Your task to perform on an android device: turn pop-ups off in chrome Image 0: 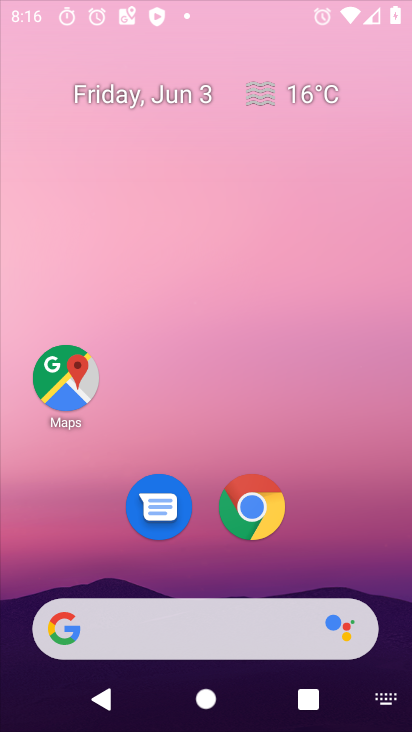
Step 0: press home button
Your task to perform on an android device: turn pop-ups off in chrome Image 1: 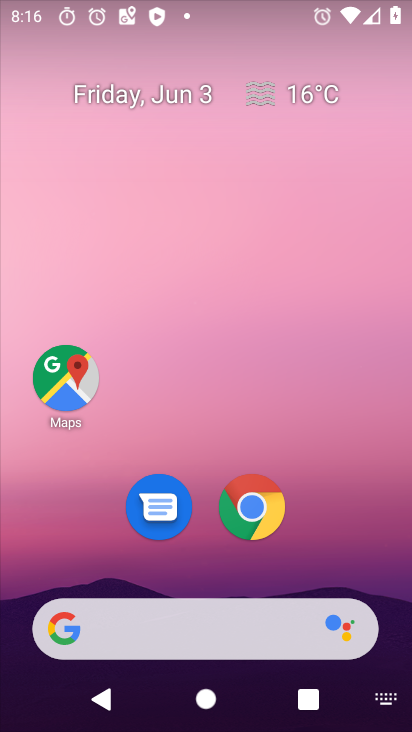
Step 1: click (255, 508)
Your task to perform on an android device: turn pop-ups off in chrome Image 2: 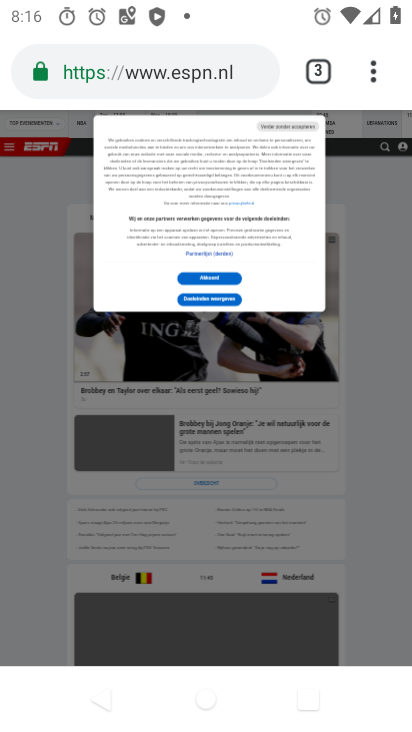
Step 2: click (371, 74)
Your task to perform on an android device: turn pop-ups off in chrome Image 3: 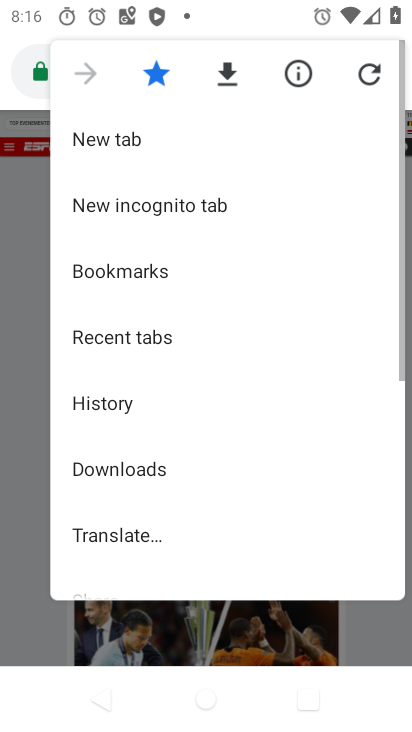
Step 3: drag from (248, 449) to (243, 88)
Your task to perform on an android device: turn pop-ups off in chrome Image 4: 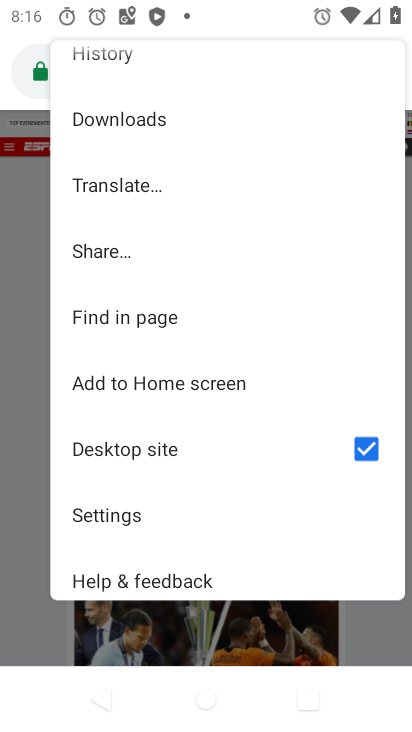
Step 4: click (171, 505)
Your task to perform on an android device: turn pop-ups off in chrome Image 5: 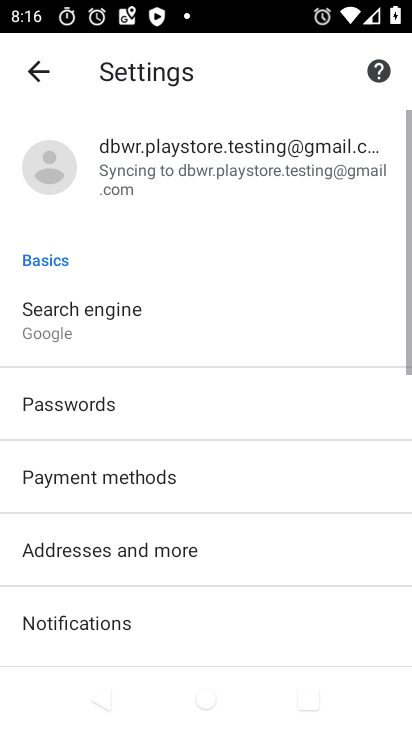
Step 5: drag from (197, 544) to (192, 124)
Your task to perform on an android device: turn pop-ups off in chrome Image 6: 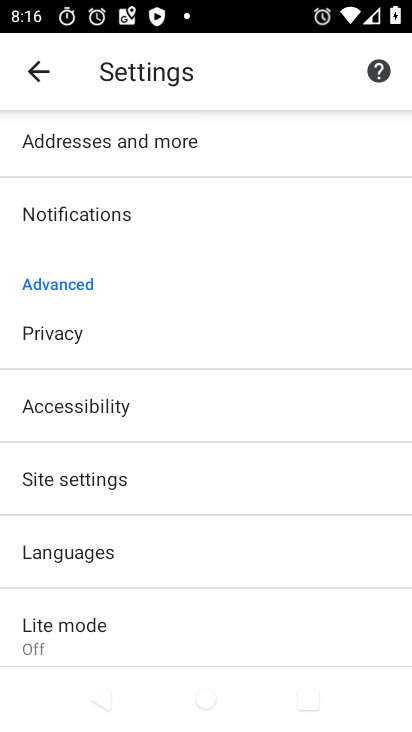
Step 6: click (169, 465)
Your task to perform on an android device: turn pop-ups off in chrome Image 7: 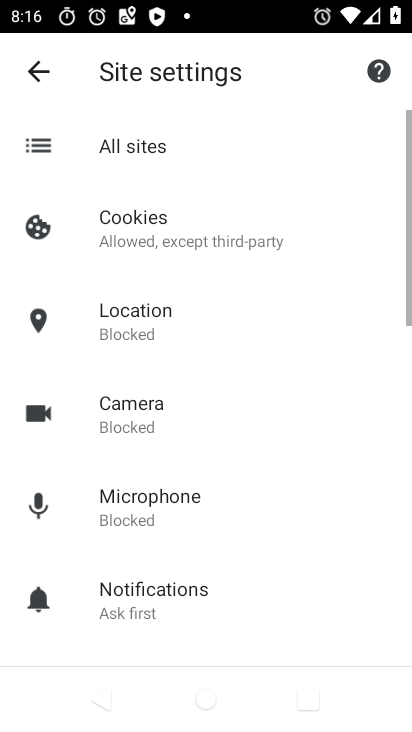
Step 7: drag from (178, 591) to (213, 150)
Your task to perform on an android device: turn pop-ups off in chrome Image 8: 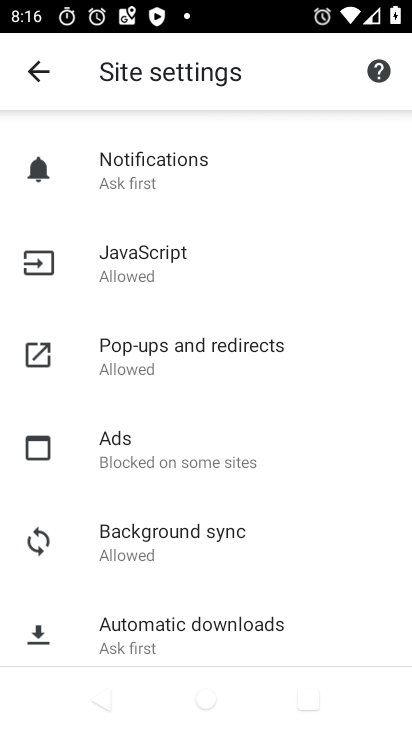
Step 8: click (207, 344)
Your task to perform on an android device: turn pop-ups off in chrome Image 9: 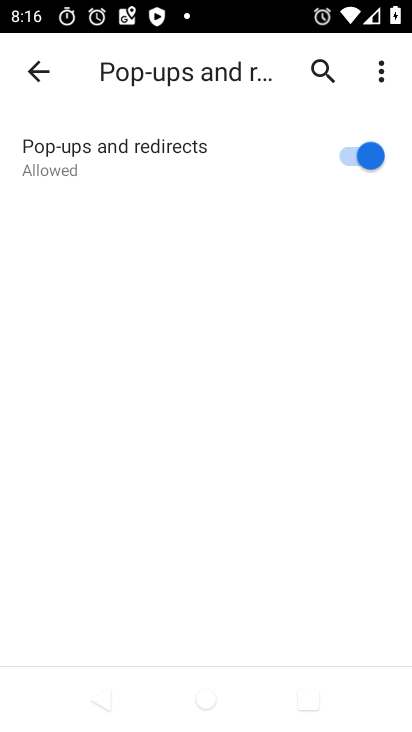
Step 9: click (375, 147)
Your task to perform on an android device: turn pop-ups off in chrome Image 10: 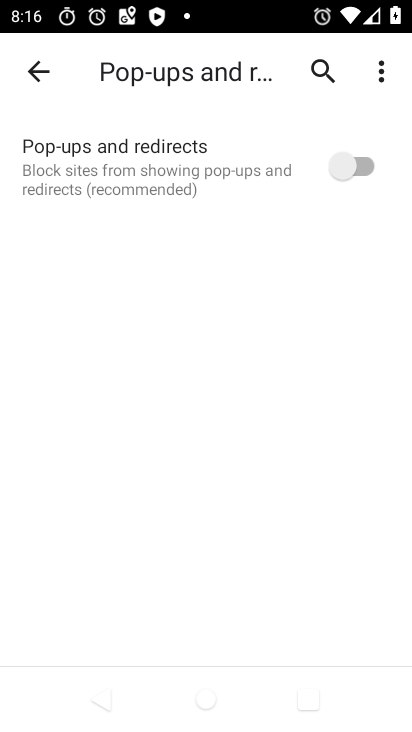
Step 10: task complete